Your task to perform on an android device: What's the weather going to be this weekend? Image 0: 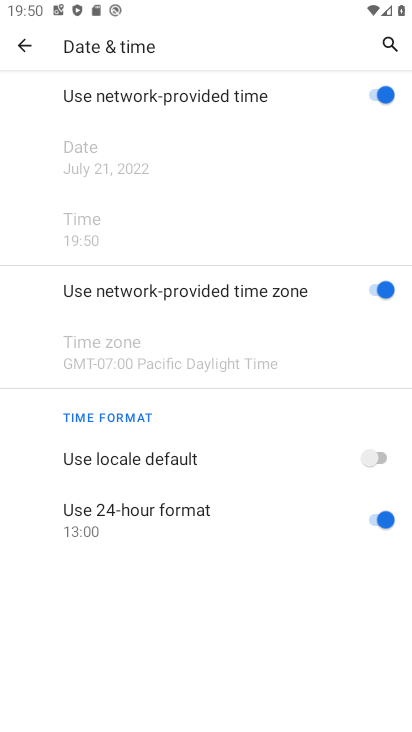
Step 0: press home button
Your task to perform on an android device: What's the weather going to be this weekend? Image 1: 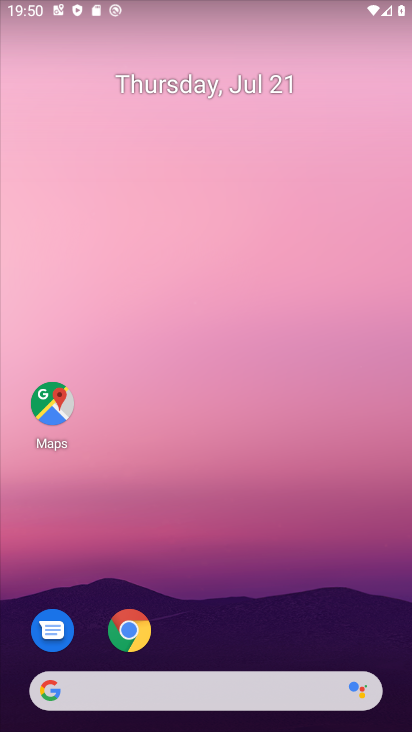
Step 1: click (146, 688)
Your task to perform on an android device: What's the weather going to be this weekend? Image 2: 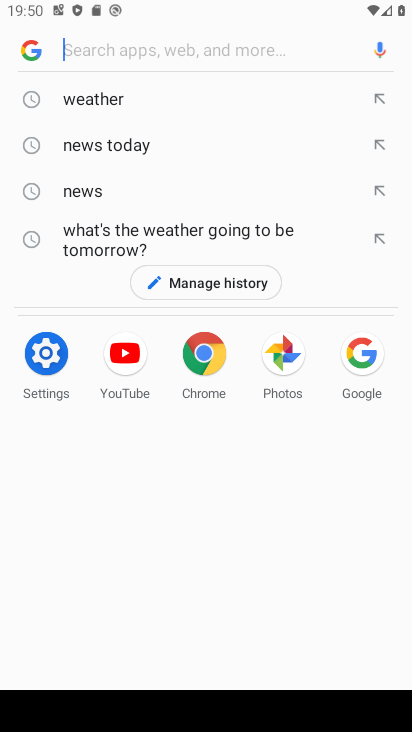
Step 2: type "What's the weather going to be this weekend?"
Your task to perform on an android device: What's the weather going to be this weekend? Image 3: 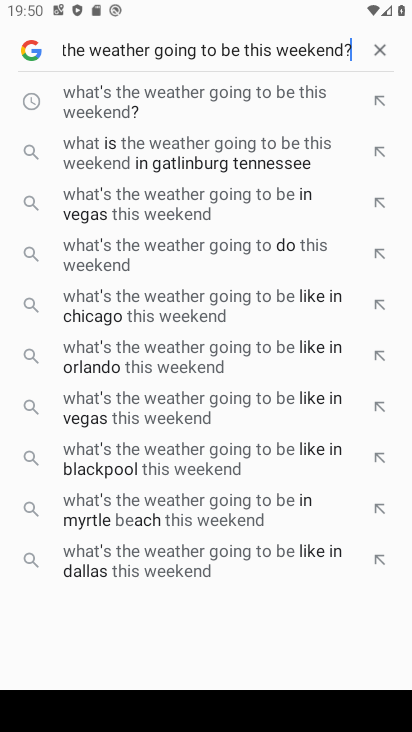
Step 3: press enter
Your task to perform on an android device: What's the weather going to be this weekend? Image 4: 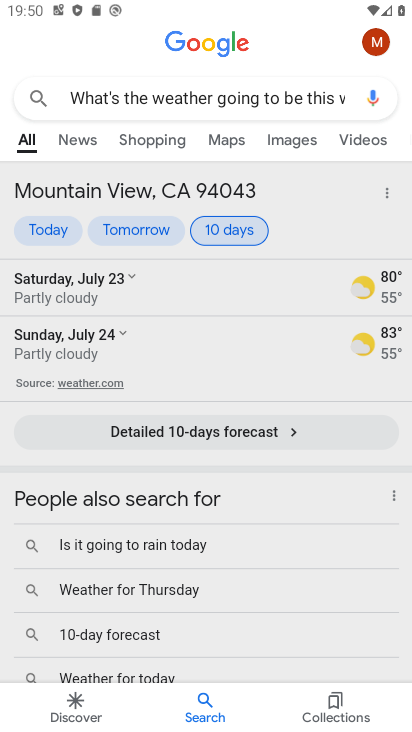
Step 4: task complete